Your task to perform on an android device: turn off location history Image 0: 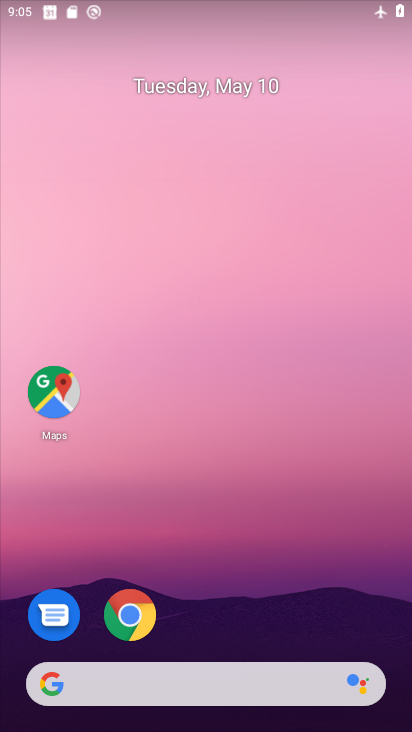
Step 0: drag from (168, 634) to (176, 164)
Your task to perform on an android device: turn off location history Image 1: 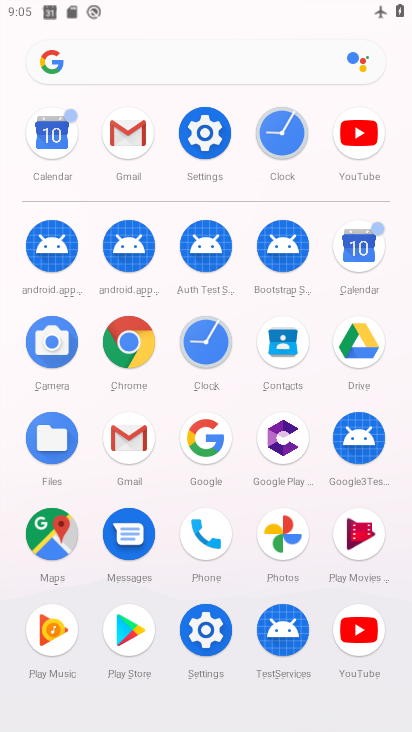
Step 1: click (202, 144)
Your task to perform on an android device: turn off location history Image 2: 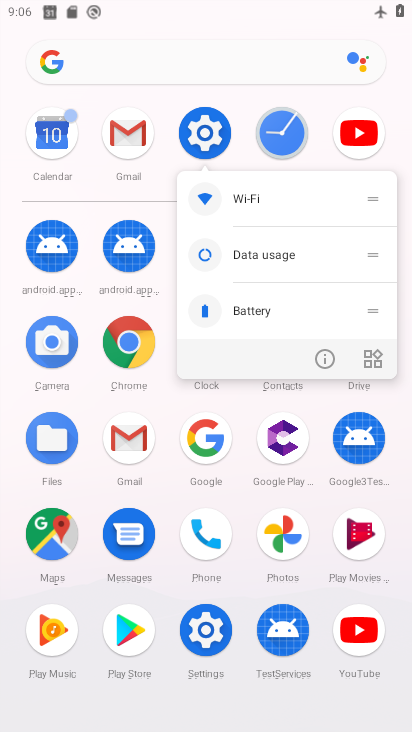
Step 2: click (320, 352)
Your task to perform on an android device: turn off location history Image 3: 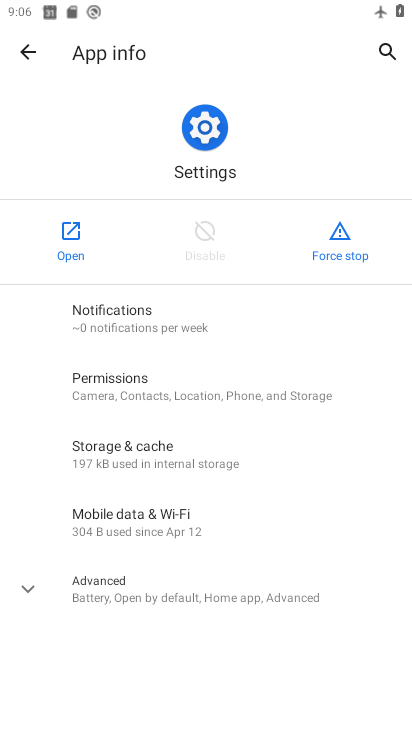
Step 3: click (64, 230)
Your task to perform on an android device: turn off location history Image 4: 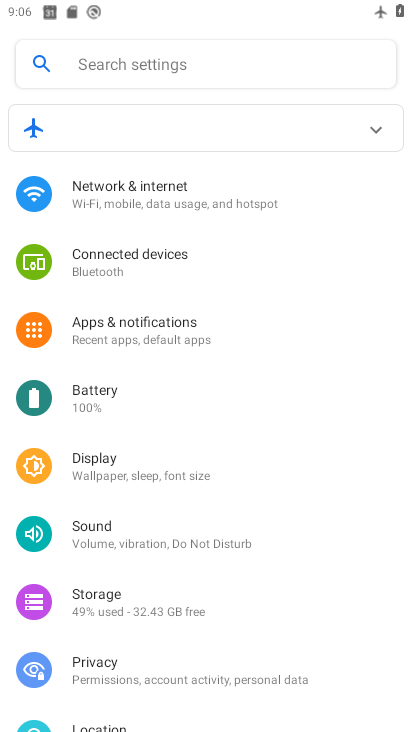
Step 4: drag from (213, 560) to (155, 125)
Your task to perform on an android device: turn off location history Image 5: 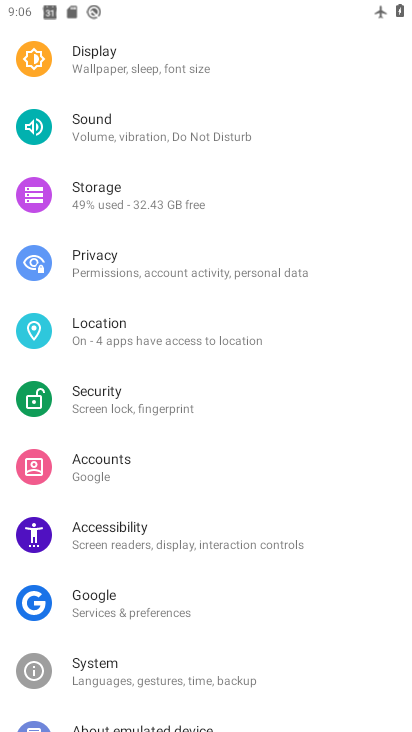
Step 5: drag from (114, 267) to (239, 729)
Your task to perform on an android device: turn off location history Image 6: 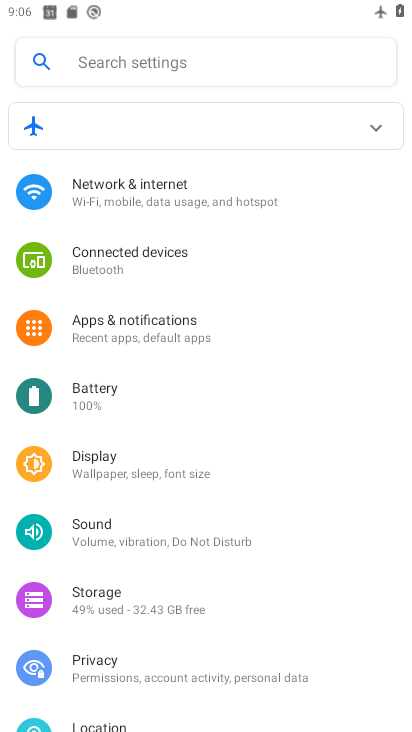
Step 6: drag from (203, 697) to (201, 190)
Your task to perform on an android device: turn off location history Image 7: 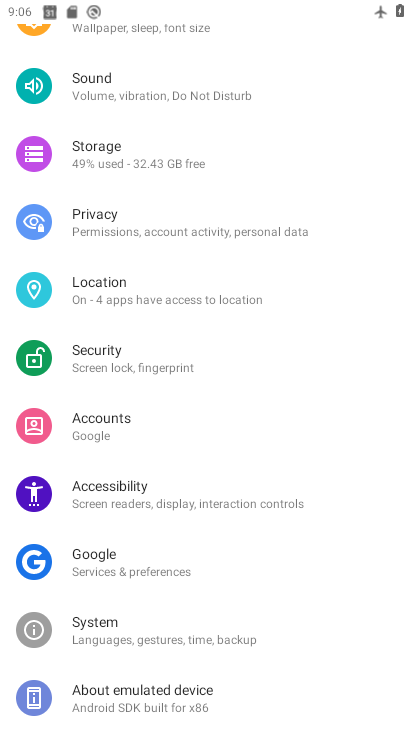
Step 7: click (104, 297)
Your task to perform on an android device: turn off location history Image 8: 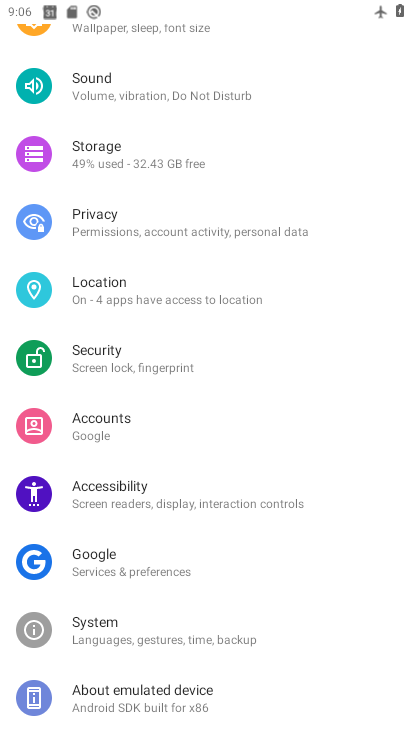
Step 8: click (104, 297)
Your task to perform on an android device: turn off location history Image 9: 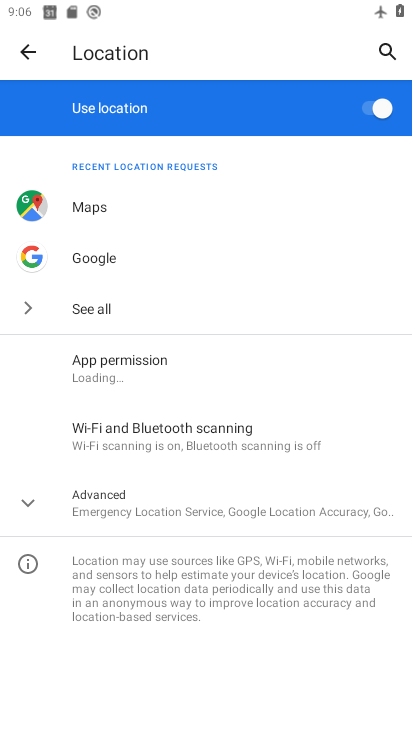
Step 9: click (152, 500)
Your task to perform on an android device: turn off location history Image 10: 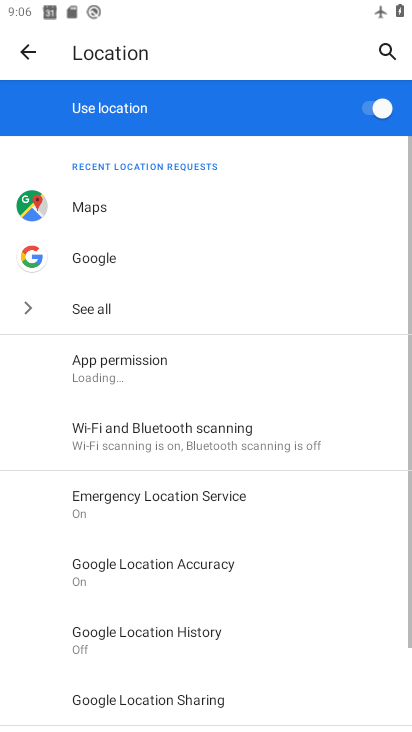
Step 10: drag from (211, 551) to (221, 233)
Your task to perform on an android device: turn off location history Image 11: 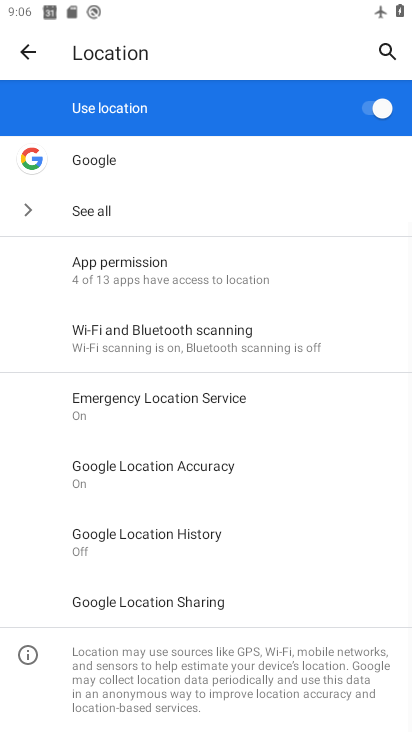
Step 11: click (196, 537)
Your task to perform on an android device: turn off location history Image 12: 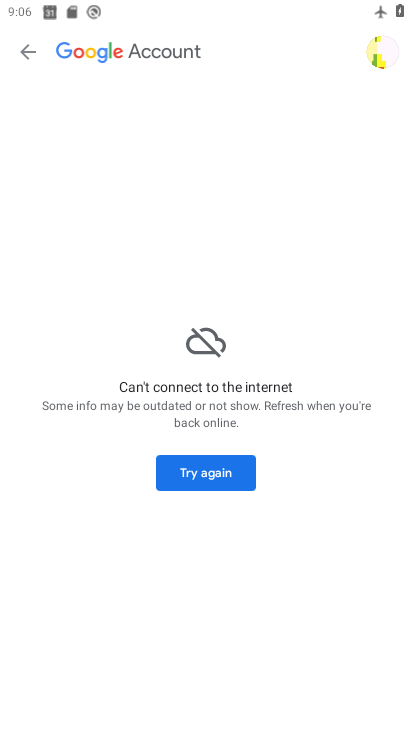
Step 12: drag from (192, 604) to (194, 403)
Your task to perform on an android device: turn off location history Image 13: 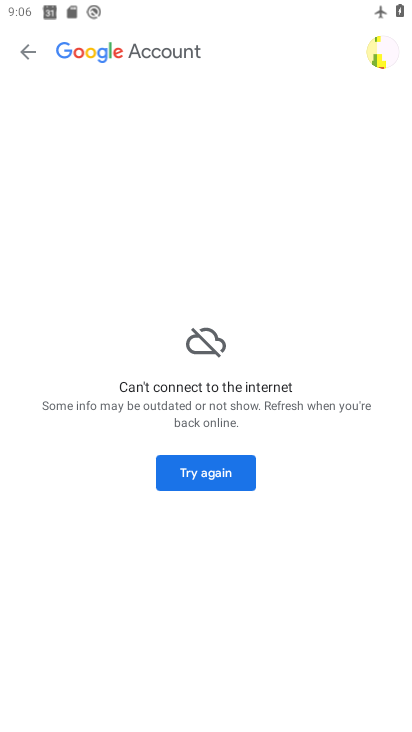
Step 13: click (206, 467)
Your task to perform on an android device: turn off location history Image 14: 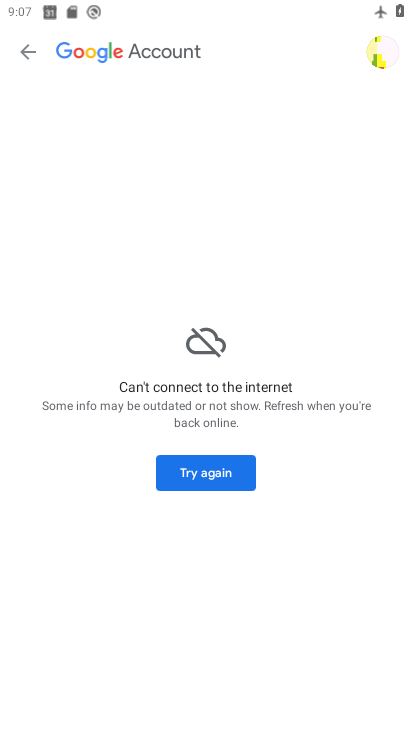
Step 14: drag from (270, 581) to (261, 189)
Your task to perform on an android device: turn off location history Image 15: 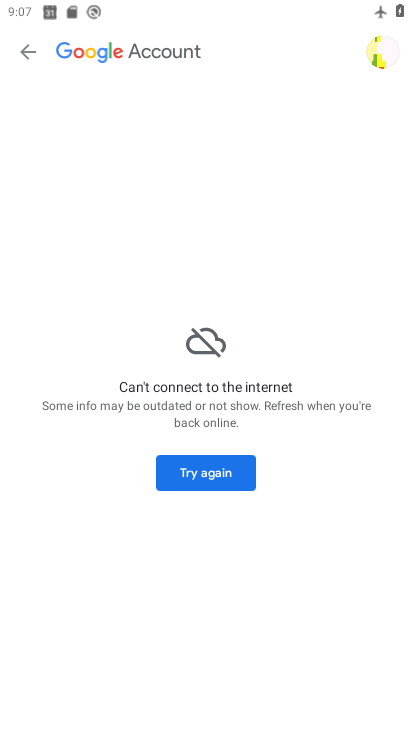
Step 15: click (155, 300)
Your task to perform on an android device: turn off location history Image 16: 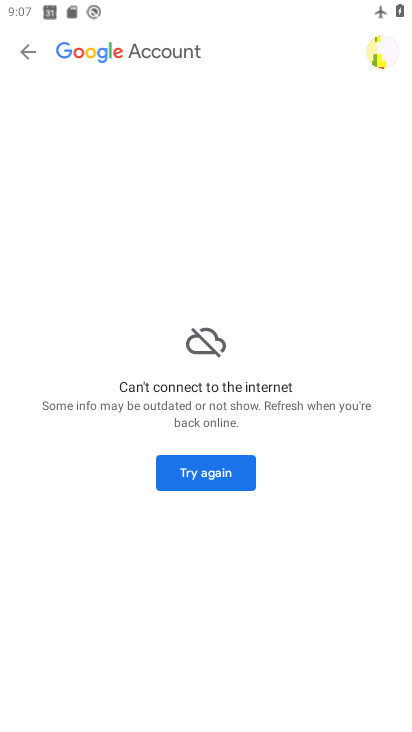
Step 16: click (227, 275)
Your task to perform on an android device: turn off location history Image 17: 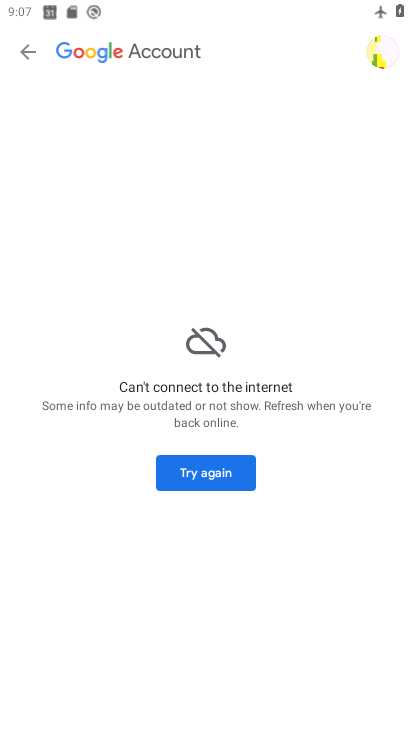
Step 17: task complete